Your task to perform on an android device: turn on notifications settings in the gmail app Image 0: 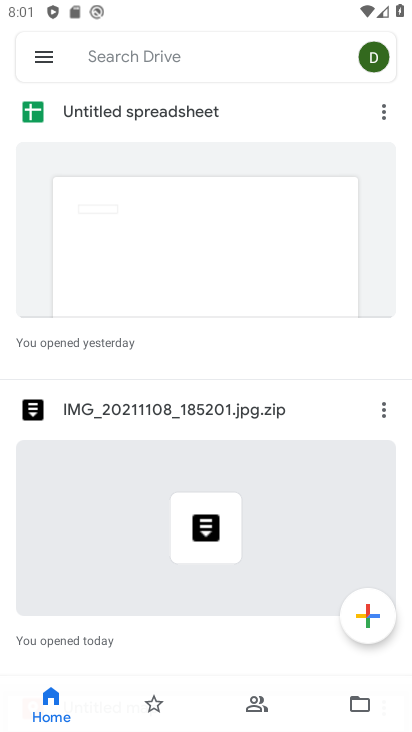
Step 0: press home button
Your task to perform on an android device: turn on notifications settings in the gmail app Image 1: 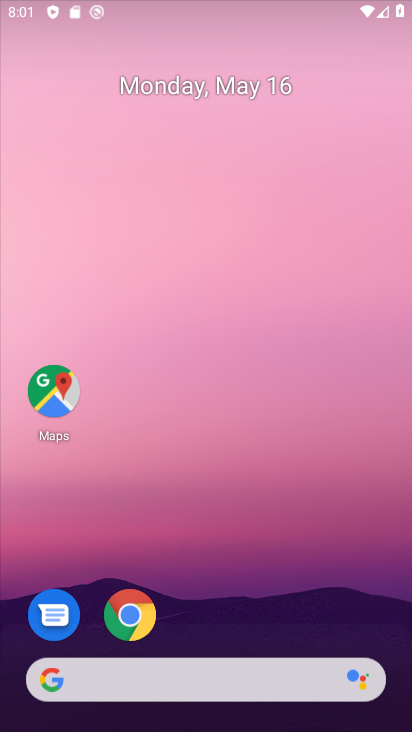
Step 1: drag from (48, 537) to (258, 45)
Your task to perform on an android device: turn on notifications settings in the gmail app Image 2: 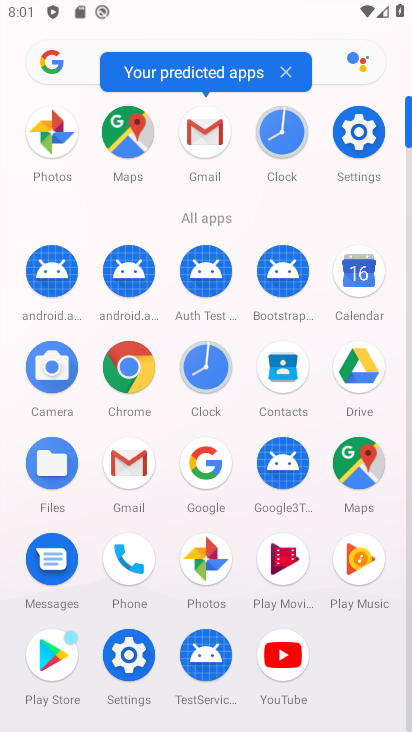
Step 2: click (135, 455)
Your task to perform on an android device: turn on notifications settings in the gmail app Image 3: 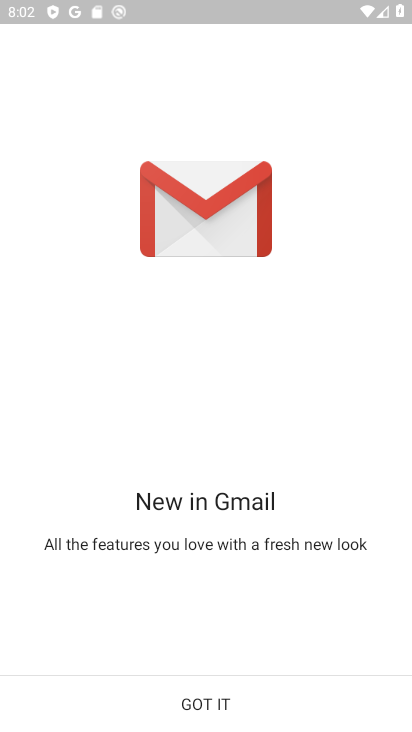
Step 3: click (146, 704)
Your task to perform on an android device: turn on notifications settings in the gmail app Image 4: 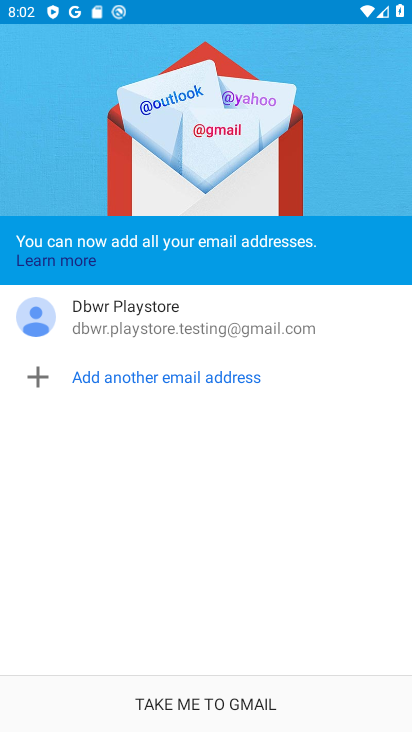
Step 4: click (146, 704)
Your task to perform on an android device: turn on notifications settings in the gmail app Image 5: 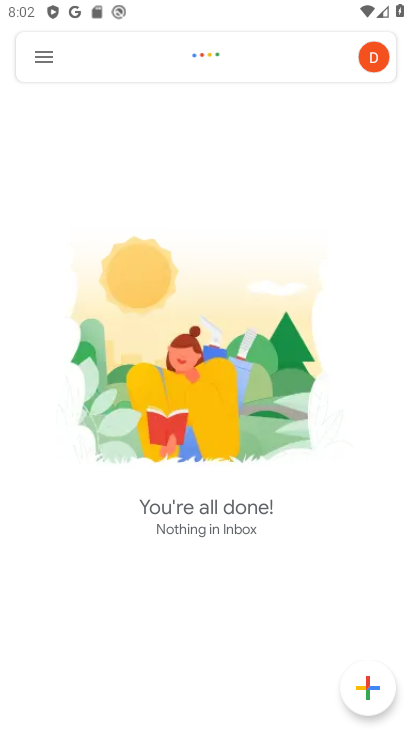
Step 5: click (33, 41)
Your task to perform on an android device: turn on notifications settings in the gmail app Image 6: 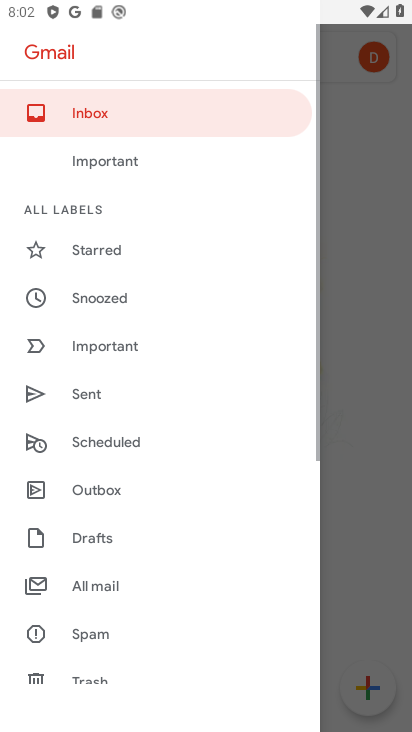
Step 6: drag from (109, 619) to (180, 150)
Your task to perform on an android device: turn on notifications settings in the gmail app Image 7: 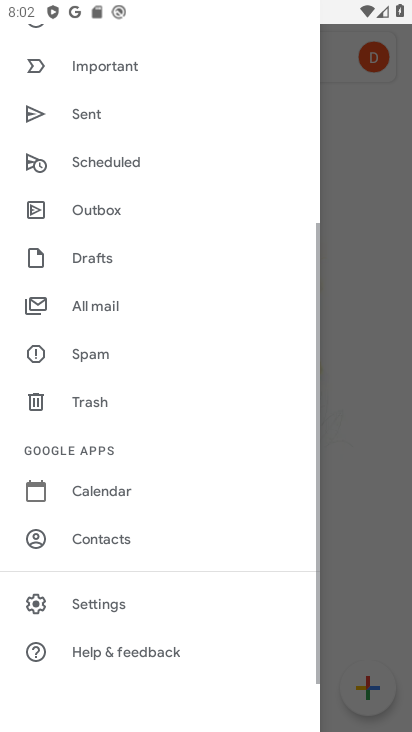
Step 7: click (68, 604)
Your task to perform on an android device: turn on notifications settings in the gmail app Image 8: 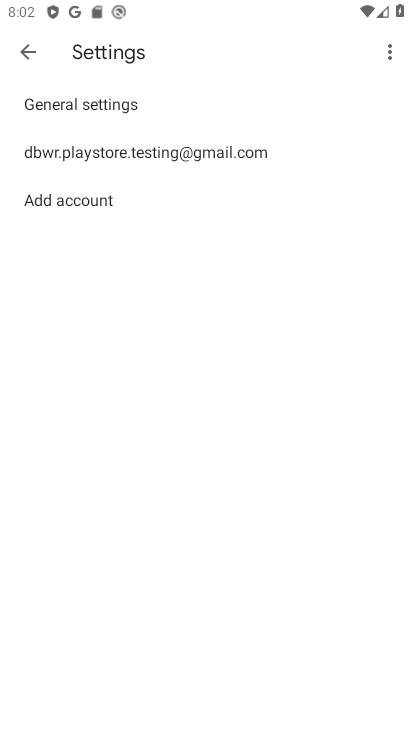
Step 8: click (71, 155)
Your task to perform on an android device: turn on notifications settings in the gmail app Image 9: 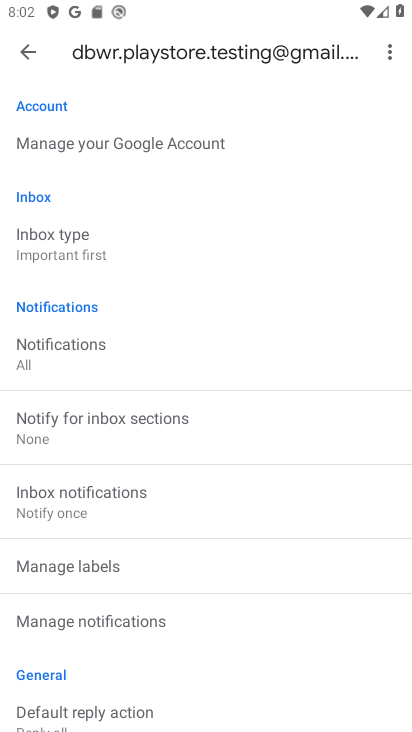
Step 9: click (76, 629)
Your task to perform on an android device: turn on notifications settings in the gmail app Image 10: 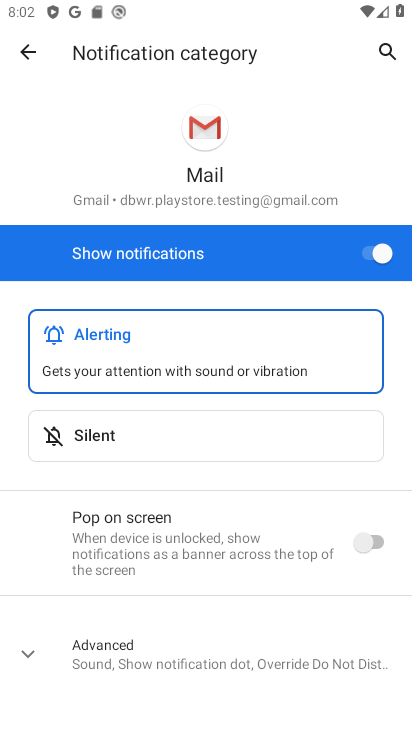
Step 10: task complete